Your task to perform on an android device: How big is the universe? Image 0: 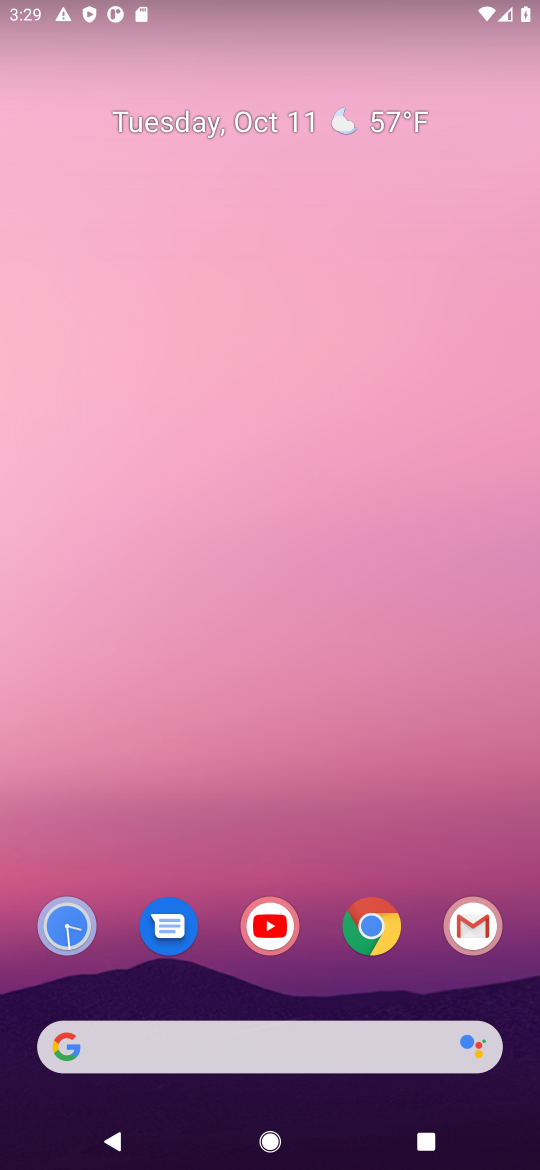
Step 0: click (277, 1027)
Your task to perform on an android device: How big is the universe? Image 1: 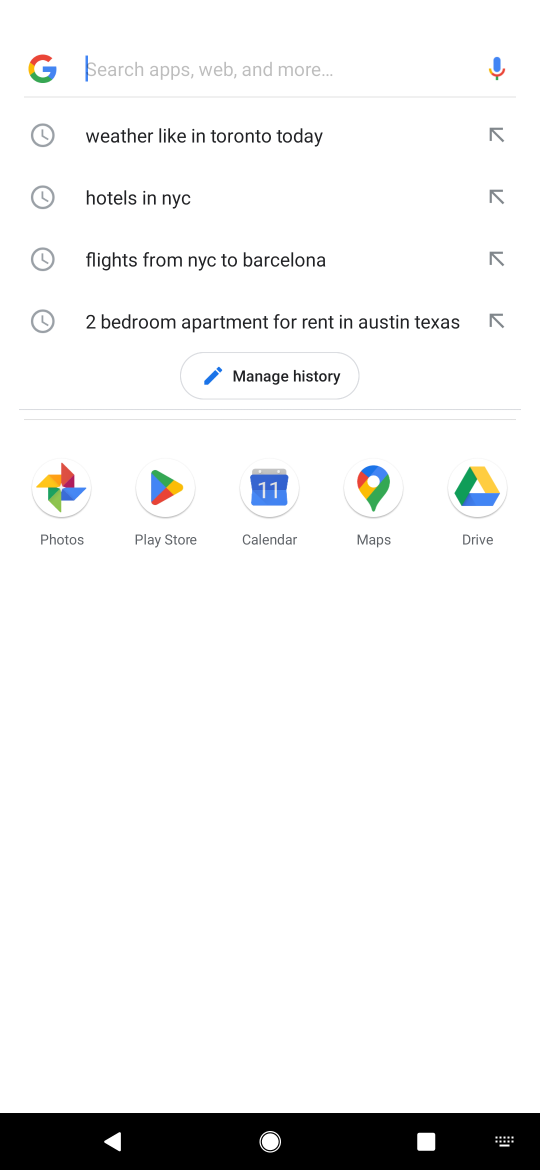
Step 1: type "How big is the universe?"
Your task to perform on an android device: How big is the universe? Image 2: 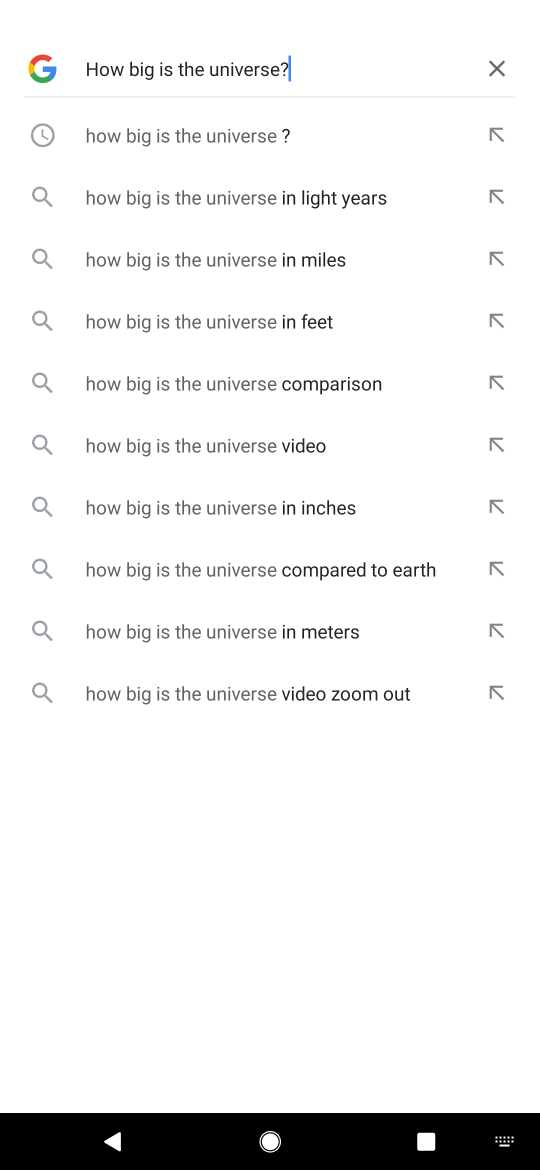
Step 2: type ""
Your task to perform on an android device: How big is the universe? Image 3: 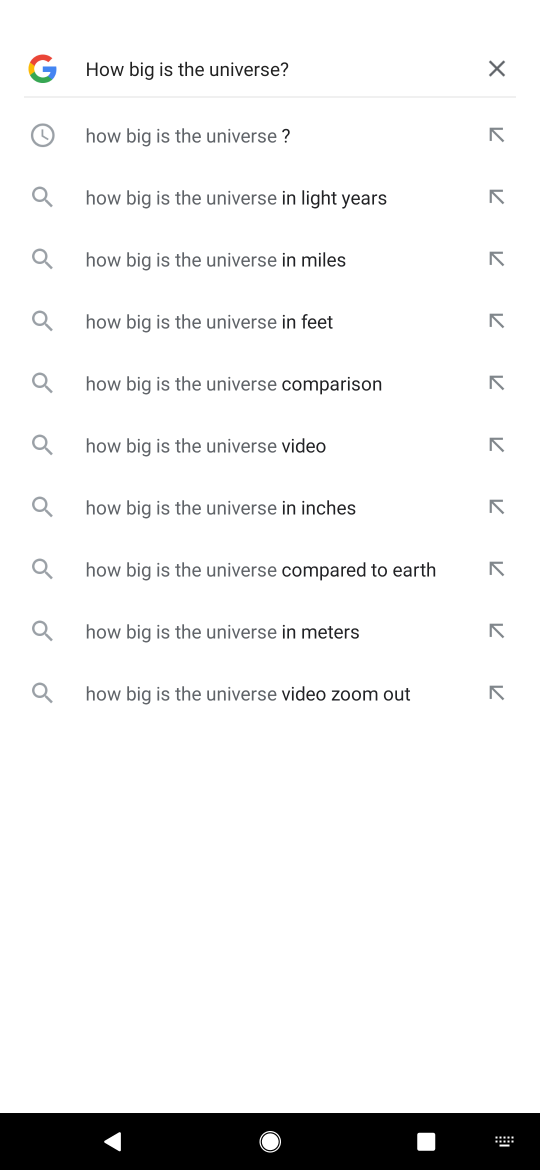
Step 3: click (236, 137)
Your task to perform on an android device: How big is the universe? Image 4: 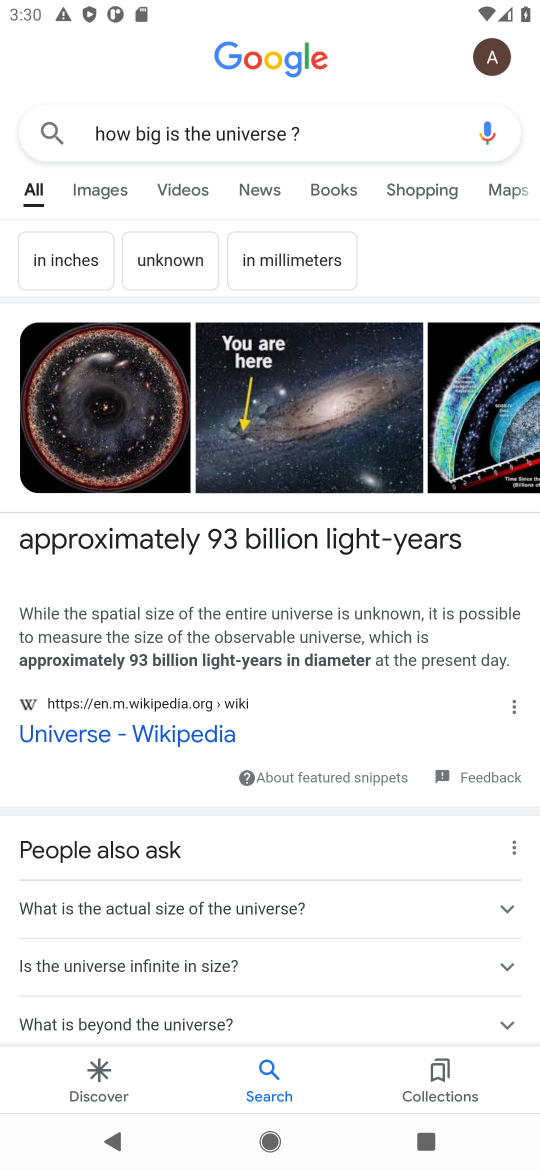
Step 4: task complete